Your task to perform on an android device: What is the recent news? Image 0: 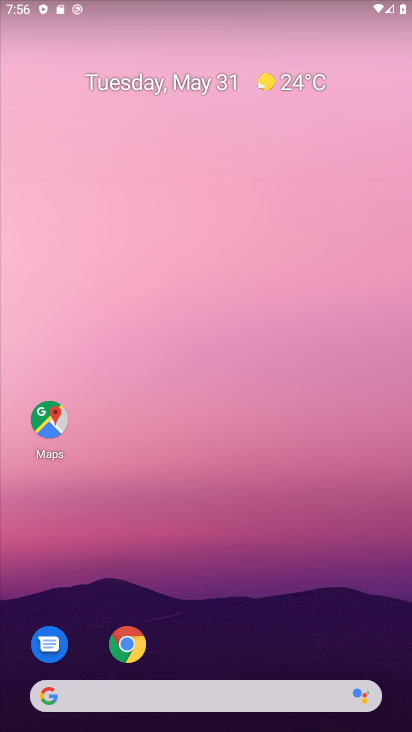
Step 0: drag from (273, 602) to (305, 200)
Your task to perform on an android device: What is the recent news? Image 1: 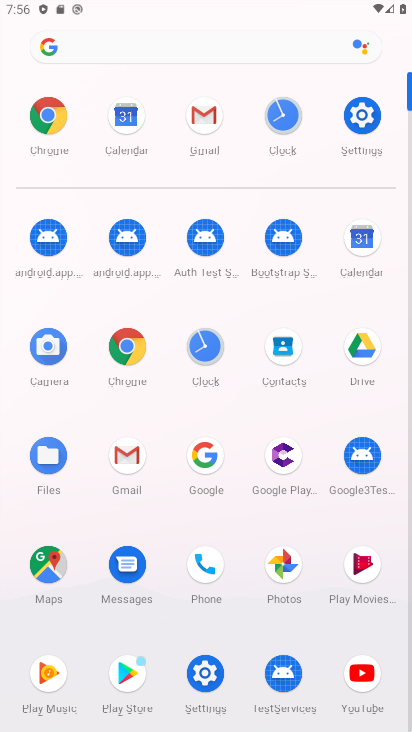
Step 1: click (111, 355)
Your task to perform on an android device: What is the recent news? Image 2: 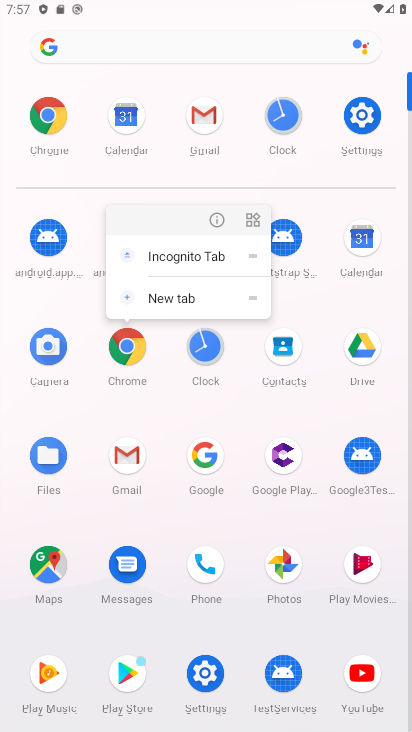
Step 2: click (128, 354)
Your task to perform on an android device: What is the recent news? Image 3: 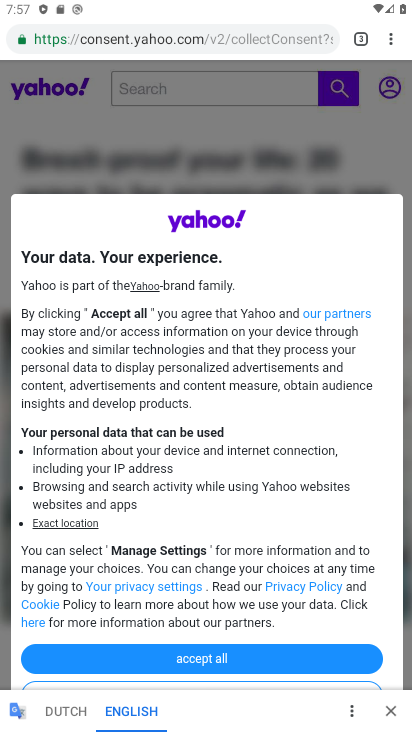
Step 3: click (183, 44)
Your task to perform on an android device: What is the recent news? Image 4: 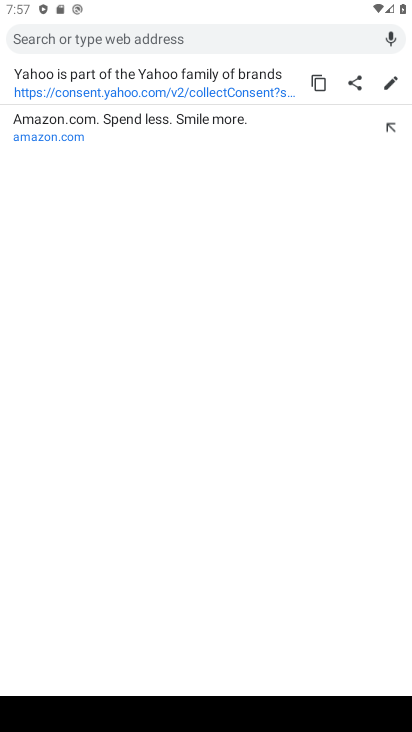
Step 4: type "what is the recent news"
Your task to perform on an android device: What is the recent news? Image 5: 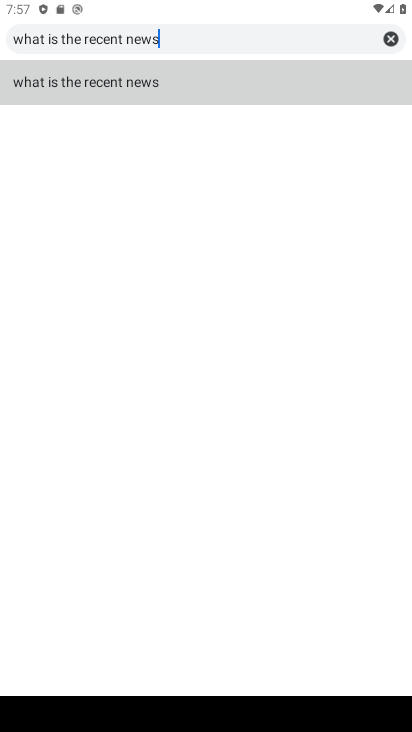
Step 5: click (118, 77)
Your task to perform on an android device: What is the recent news? Image 6: 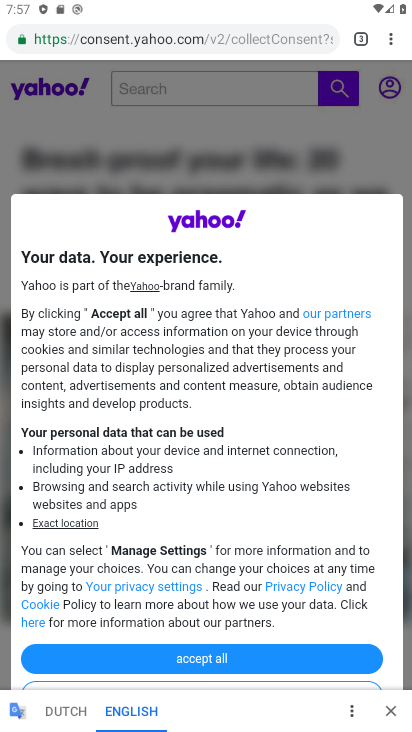
Step 6: task complete